Your task to perform on an android device: What is the news today? Image 0: 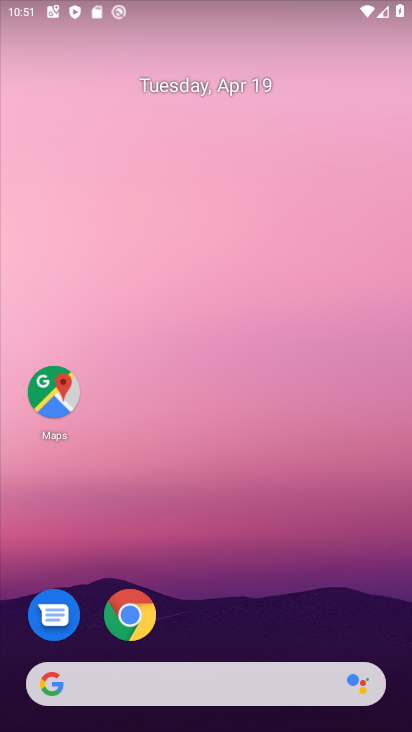
Step 0: drag from (225, 565) to (205, 115)
Your task to perform on an android device: What is the news today? Image 1: 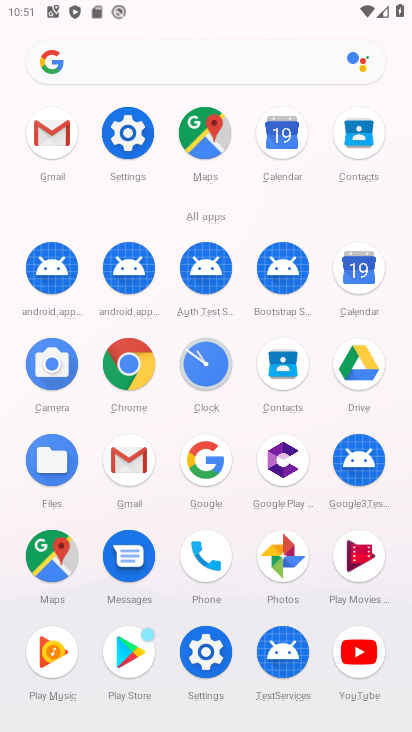
Step 1: click (209, 462)
Your task to perform on an android device: What is the news today? Image 2: 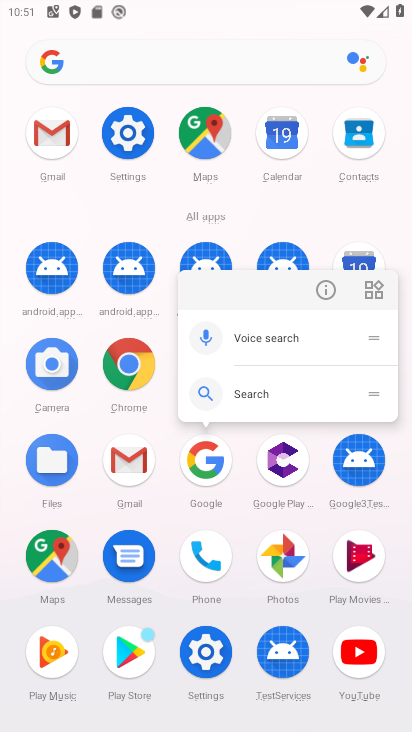
Step 2: click (244, 602)
Your task to perform on an android device: What is the news today? Image 3: 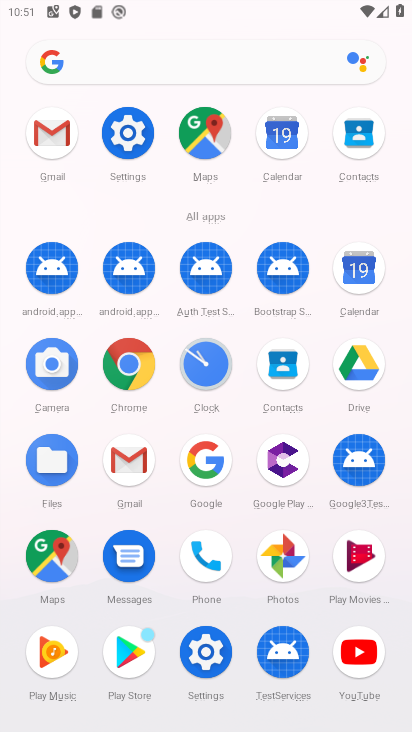
Step 3: click (203, 467)
Your task to perform on an android device: What is the news today? Image 4: 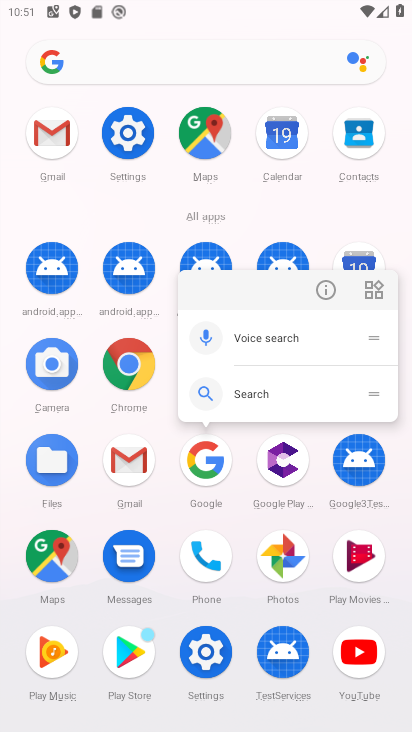
Step 4: click (241, 600)
Your task to perform on an android device: What is the news today? Image 5: 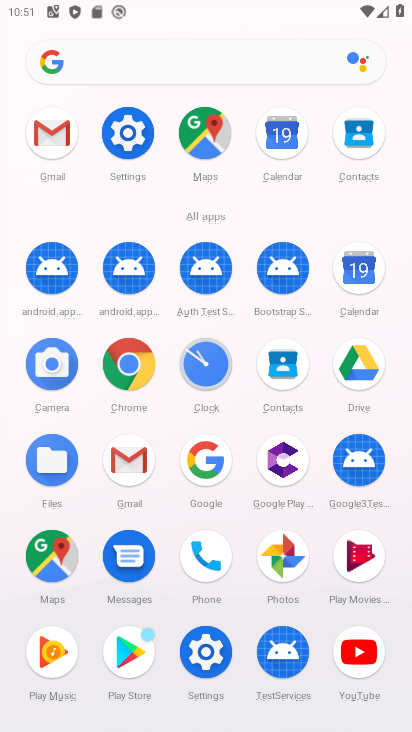
Step 5: click (202, 465)
Your task to perform on an android device: What is the news today? Image 6: 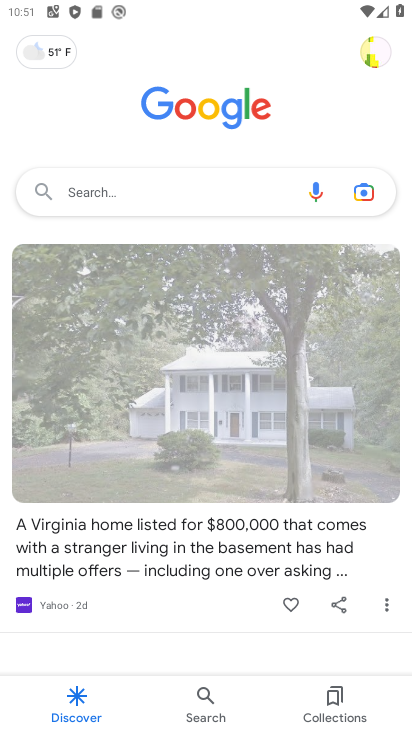
Step 6: click (151, 201)
Your task to perform on an android device: What is the news today? Image 7: 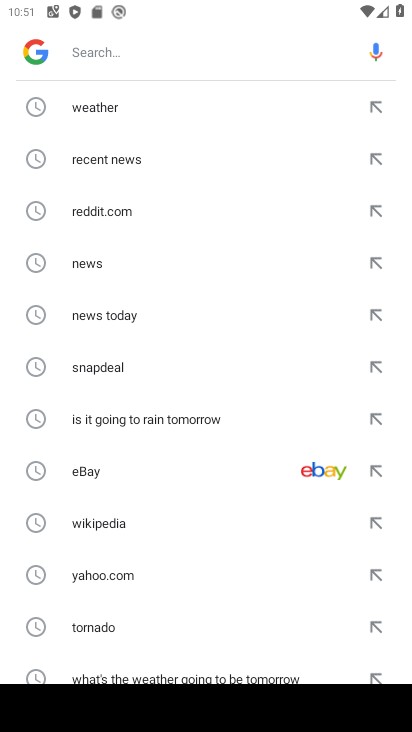
Step 7: click (176, 322)
Your task to perform on an android device: What is the news today? Image 8: 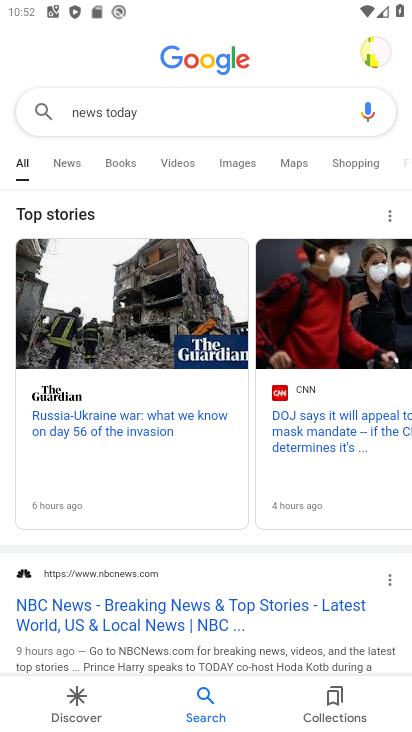
Step 8: task complete